Your task to perform on an android device: Open calendar and show me the third week of next month Image 0: 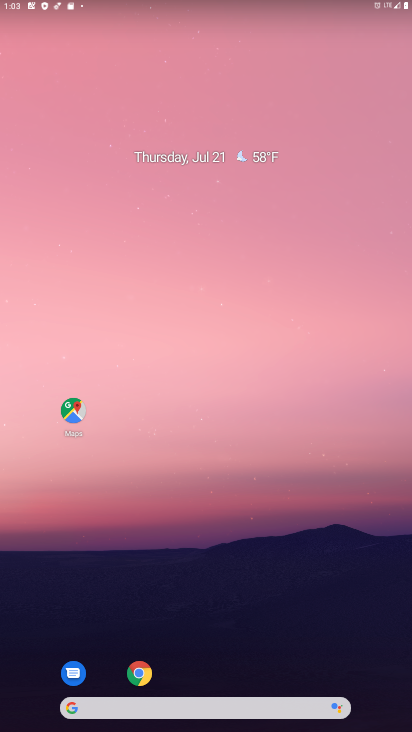
Step 0: drag from (289, 685) to (291, 284)
Your task to perform on an android device: Open calendar and show me the third week of next month Image 1: 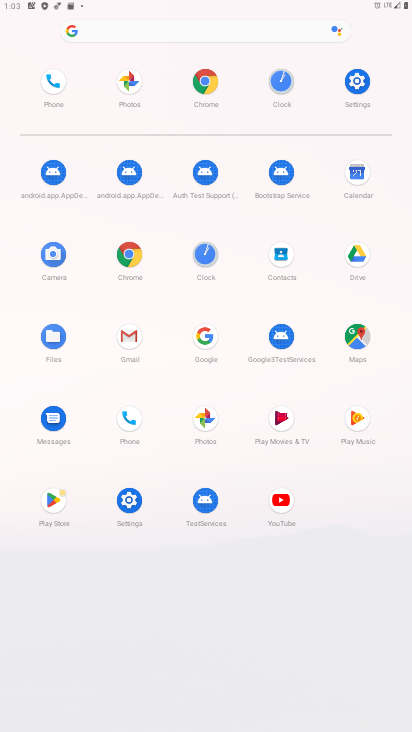
Step 1: click (357, 174)
Your task to perform on an android device: Open calendar and show me the third week of next month Image 2: 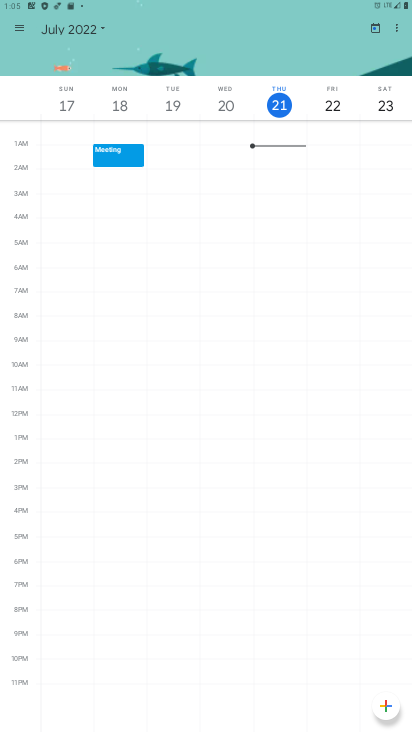
Step 2: drag from (332, 109) to (8, 0)
Your task to perform on an android device: Open calendar and show me the third week of next month Image 3: 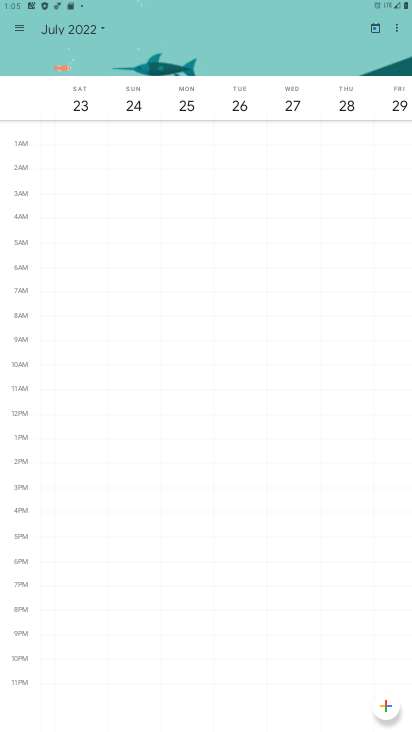
Step 3: click (11, 31)
Your task to perform on an android device: Open calendar and show me the third week of next month Image 4: 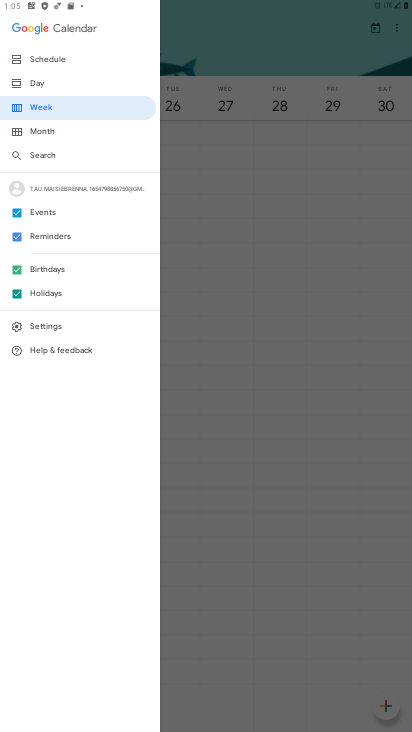
Step 4: click (59, 131)
Your task to perform on an android device: Open calendar and show me the third week of next month Image 5: 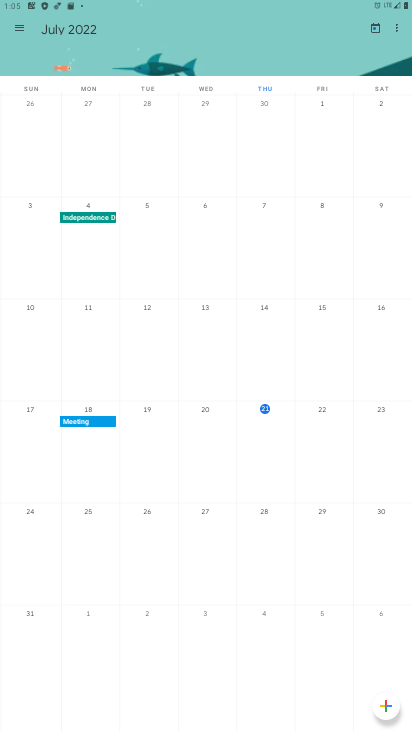
Step 5: task complete